Your task to perform on an android device: turn pop-ups on in chrome Image 0: 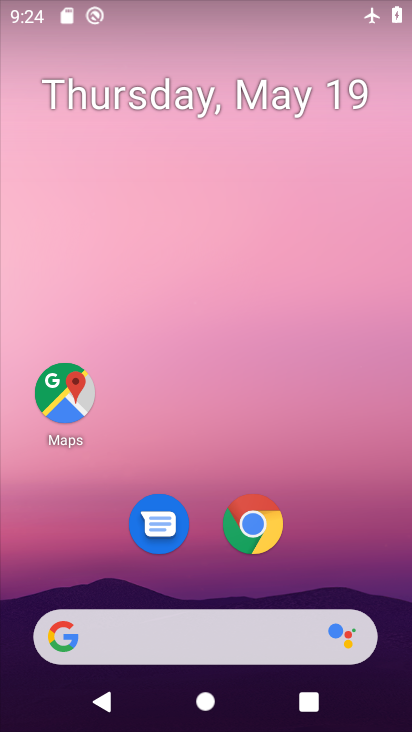
Step 0: click (264, 523)
Your task to perform on an android device: turn pop-ups on in chrome Image 1: 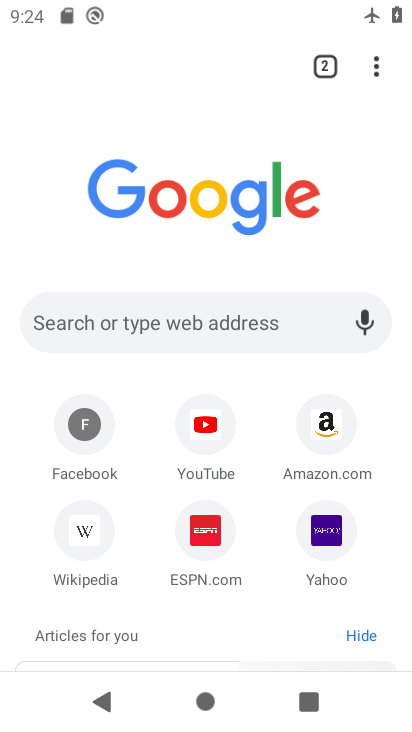
Step 1: click (375, 69)
Your task to perform on an android device: turn pop-ups on in chrome Image 2: 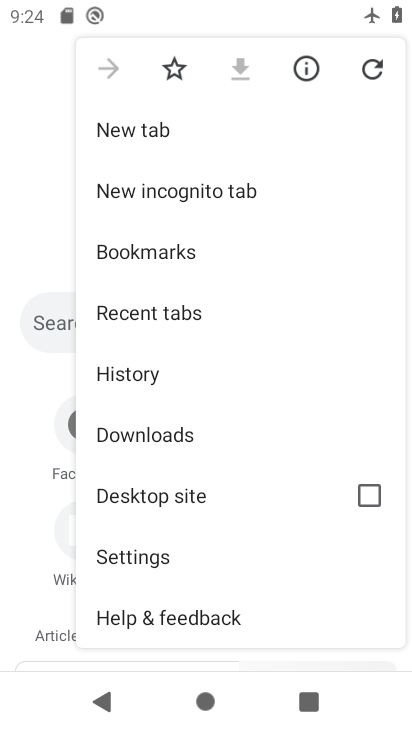
Step 2: click (155, 557)
Your task to perform on an android device: turn pop-ups on in chrome Image 3: 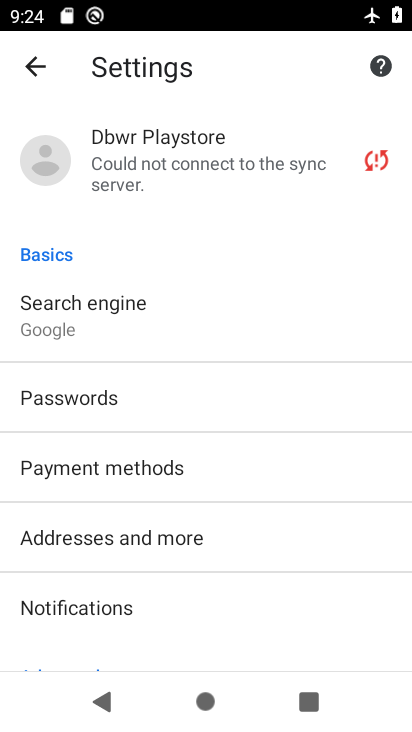
Step 3: drag from (252, 510) to (276, 225)
Your task to perform on an android device: turn pop-ups on in chrome Image 4: 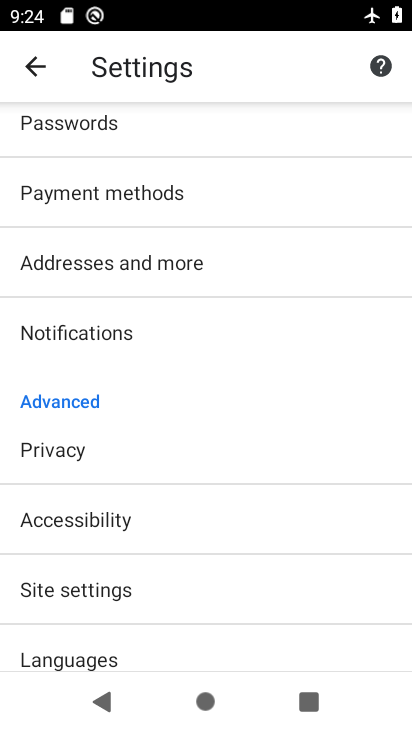
Step 4: click (162, 595)
Your task to perform on an android device: turn pop-ups on in chrome Image 5: 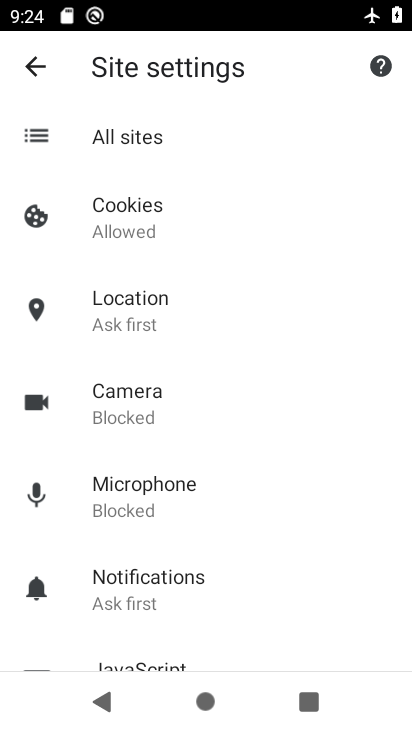
Step 5: drag from (244, 536) to (273, 199)
Your task to perform on an android device: turn pop-ups on in chrome Image 6: 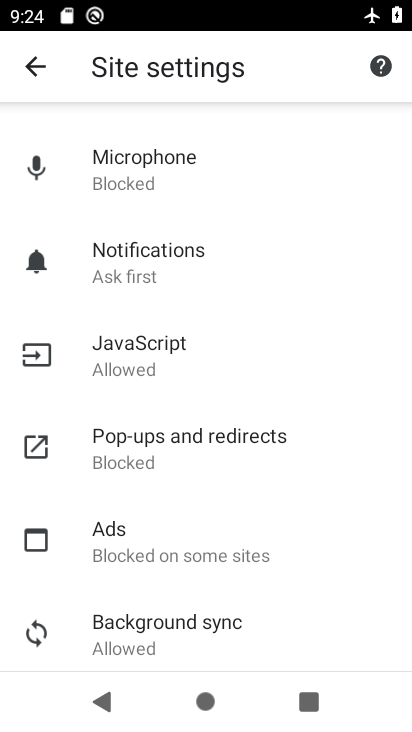
Step 6: drag from (199, 498) to (200, 141)
Your task to perform on an android device: turn pop-ups on in chrome Image 7: 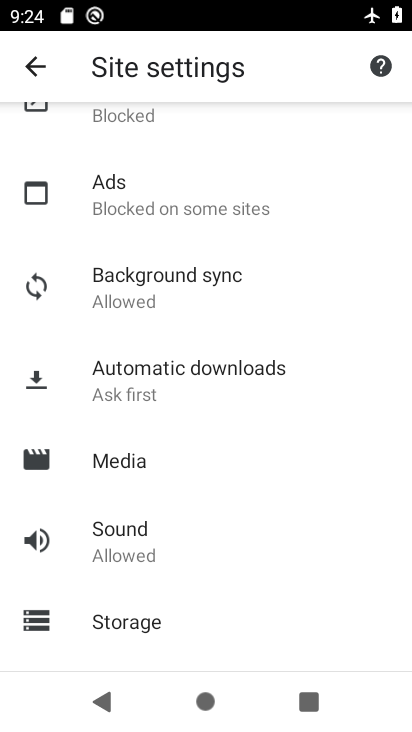
Step 7: drag from (179, 425) to (214, 154)
Your task to perform on an android device: turn pop-ups on in chrome Image 8: 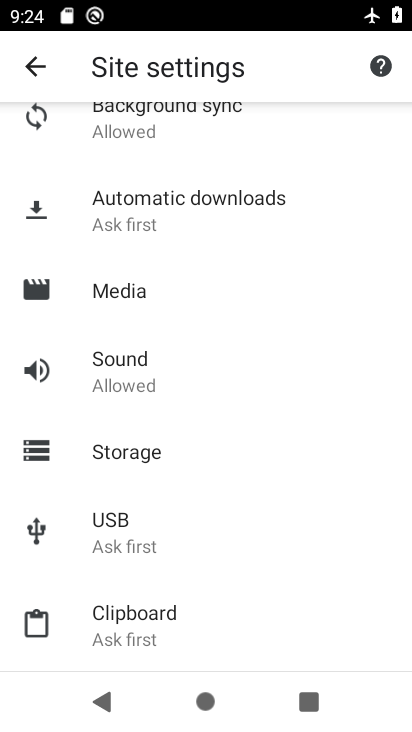
Step 8: drag from (202, 292) to (203, 614)
Your task to perform on an android device: turn pop-ups on in chrome Image 9: 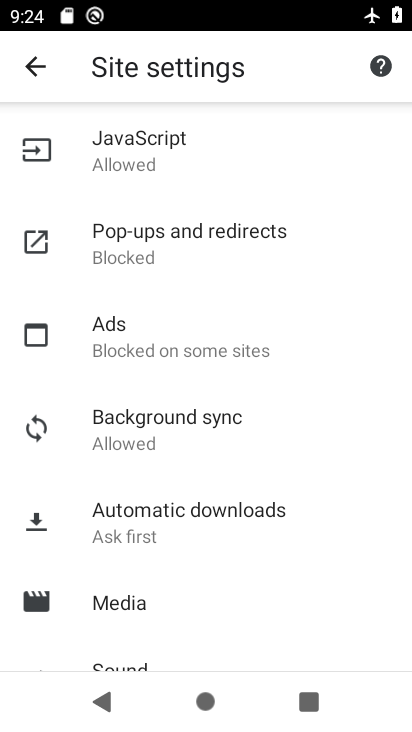
Step 9: click (224, 242)
Your task to perform on an android device: turn pop-ups on in chrome Image 10: 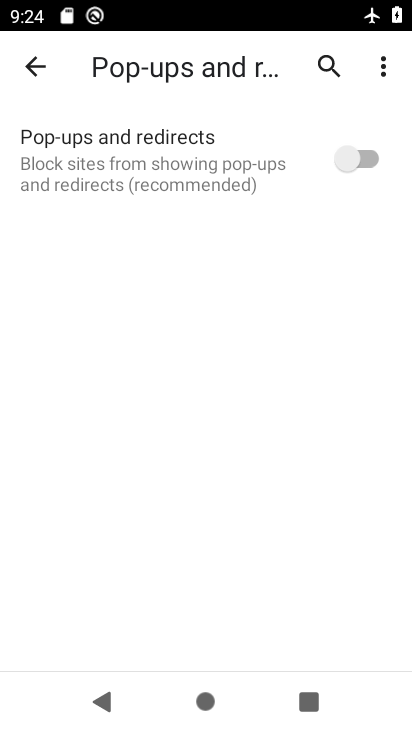
Step 10: click (355, 152)
Your task to perform on an android device: turn pop-ups on in chrome Image 11: 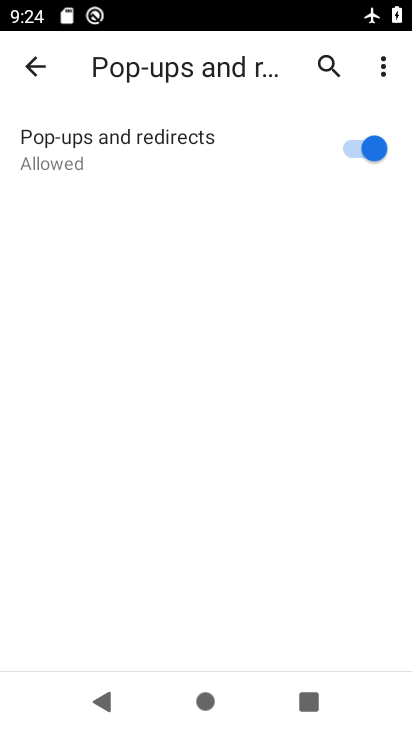
Step 11: task complete